Your task to perform on an android device: Open Android settings Image 0: 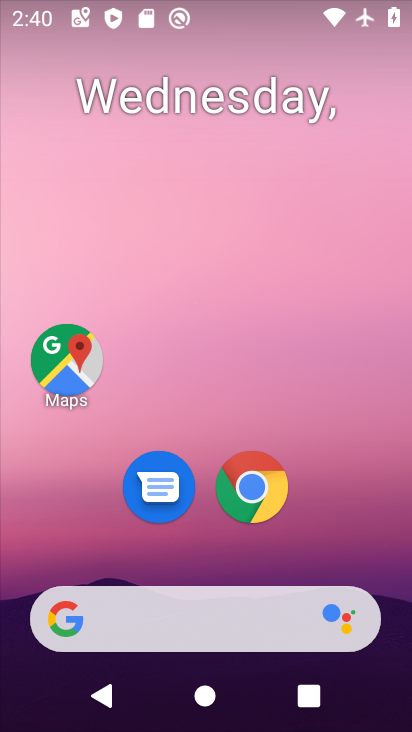
Step 0: drag from (393, 496) to (399, 201)
Your task to perform on an android device: Open Android settings Image 1: 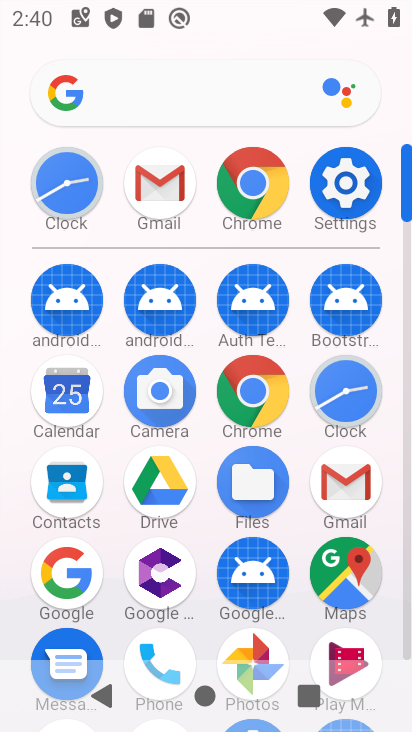
Step 1: click (330, 192)
Your task to perform on an android device: Open Android settings Image 2: 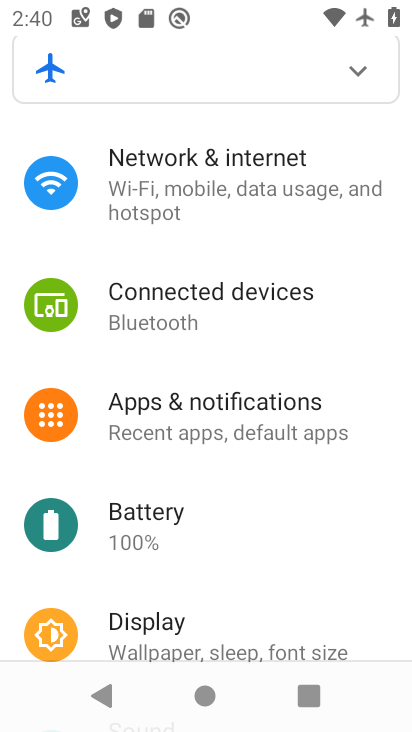
Step 2: task complete